Your task to perform on an android device: Go to notification settings Image 0: 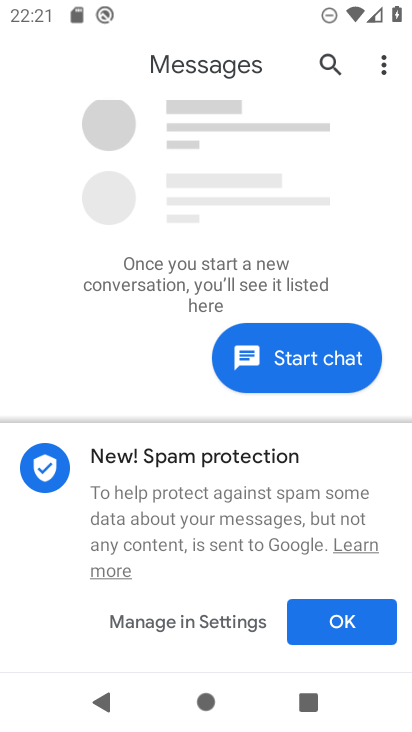
Step 0: press home button
Your task to perform on an android device: Go to notification settings Image 1: 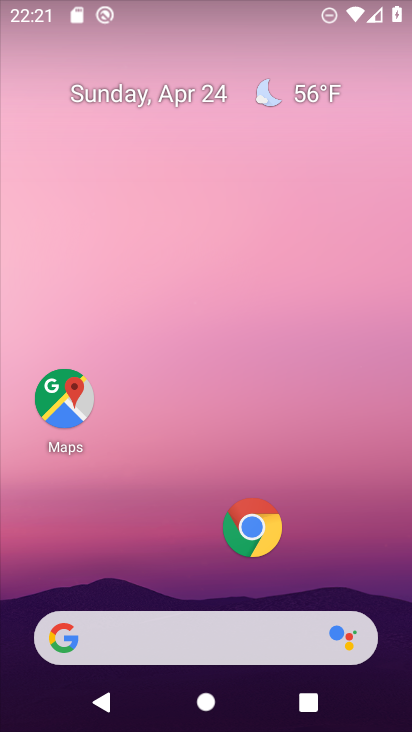
Step 1: drag from (183, 579) to (197, 104)
Your task to perform on an android device: Go to notification settings Image 2: 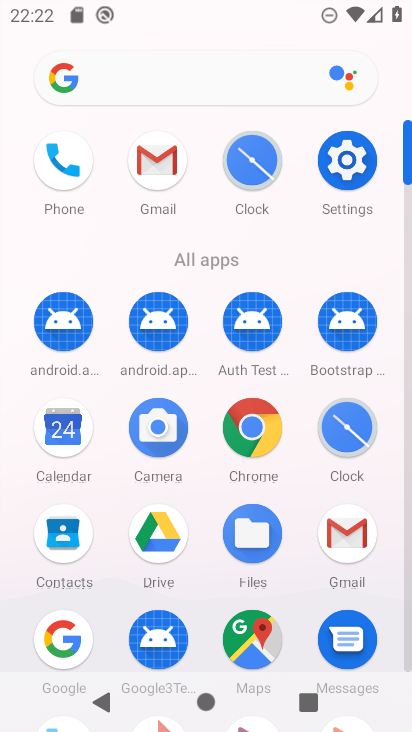
Step 2: click (360, 162)
Your task to perform on an android device: Go to notification settings Image 3: 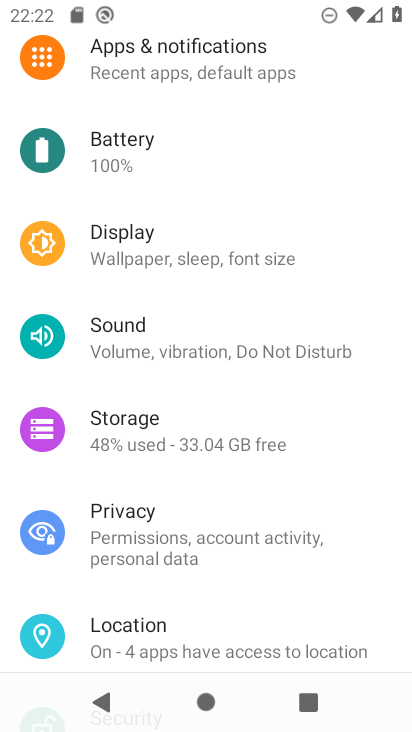
Step 3: click (230, 77)
Your task to perform on an android device: Go to notification settings Image 4: 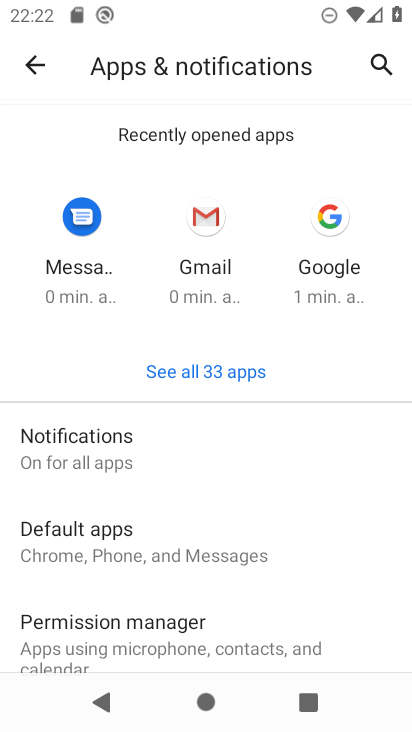
Step 4: click (119, 463)
Your task to perform on an android device: Go to notification settings Image 5: 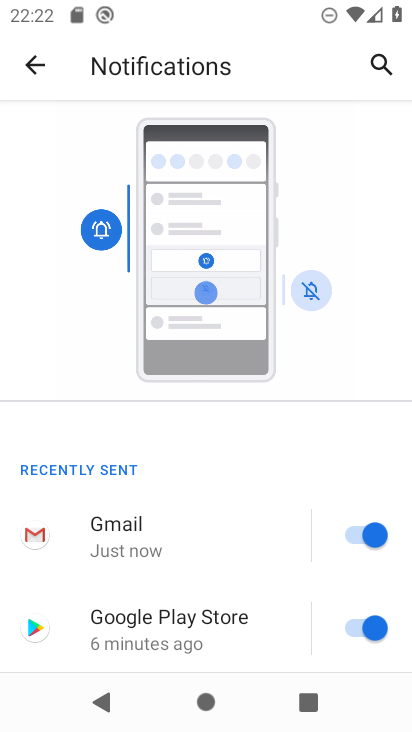
Step 5: task complete